Your task to perform on an android device: set default search engine in the chrome app Image 0: 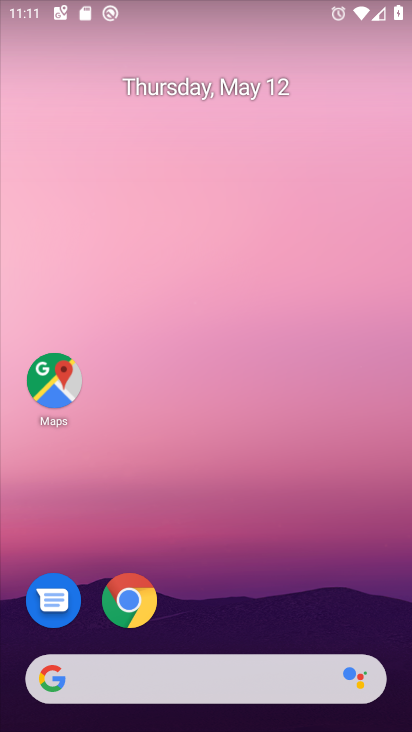
Step 0: click (131, 611)
Your task to perform on an android device: set default search engine in the chrome app Image 1: 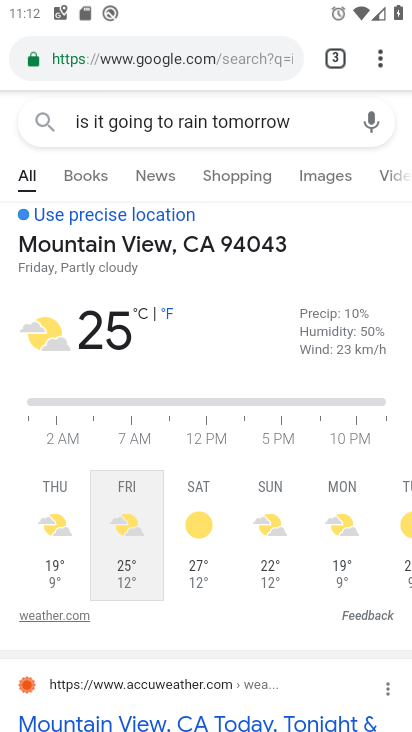
Step 1: click (383, 56)
Your task to perform on an android device: set default search engine in the chrome app Image 2: 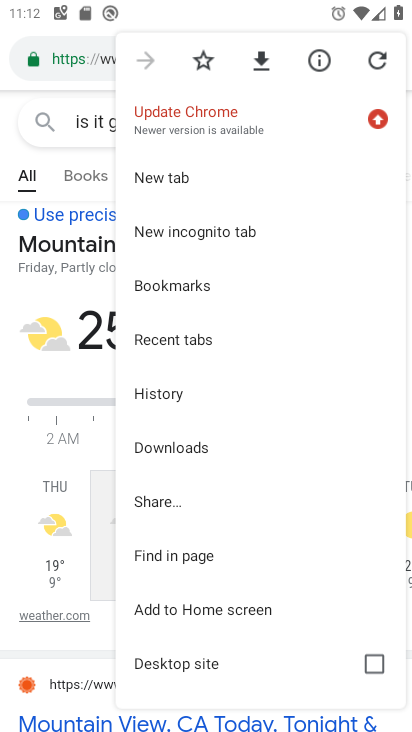
Step 2: drag from (196, 657) to (216, 339)
Your task to perform on an android device: set default search engine in the chrome app Image 3: 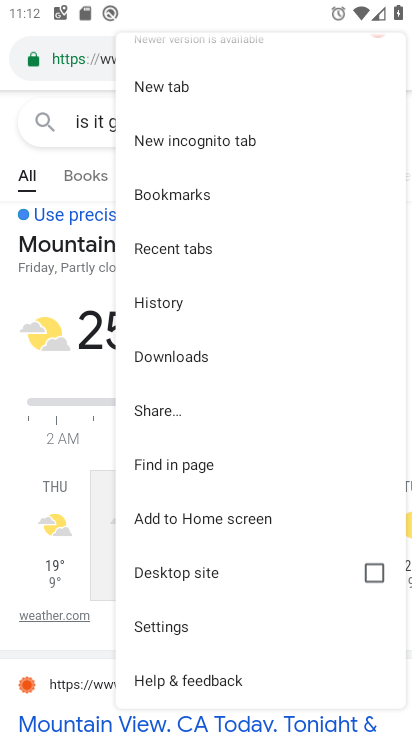
Step 3: click (157, 626)
Your task to perform on an android device: set default search engine in the chrome app Image 4: 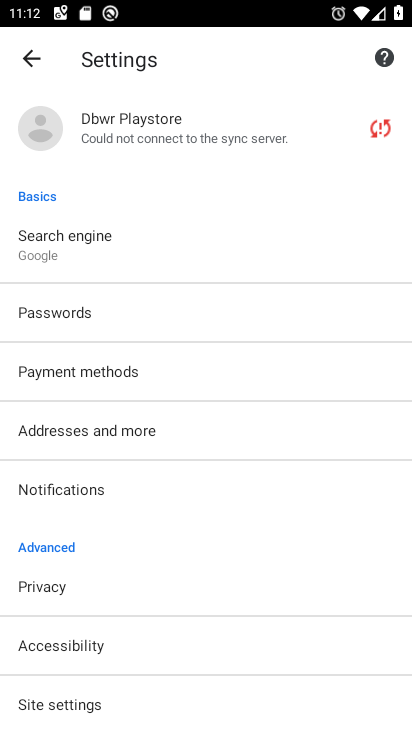
Step 4: click (72, 246)
Your task to perform on an android device: set default search engine in the chrome app Image 5: 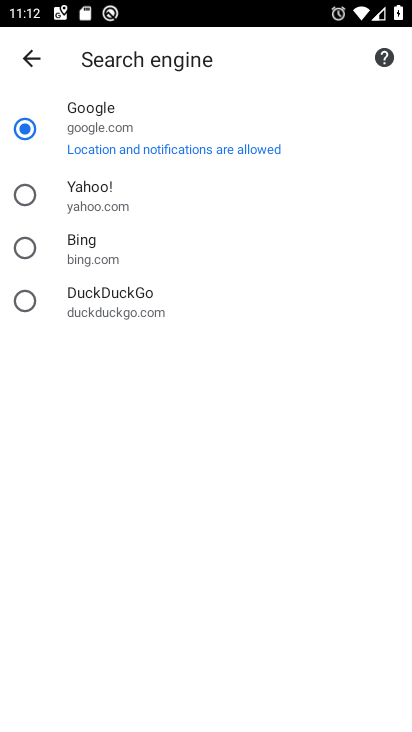
Step 5: click (75, 306)
Your task to perform on an android device: set default search engine in the chrome app Image 6: 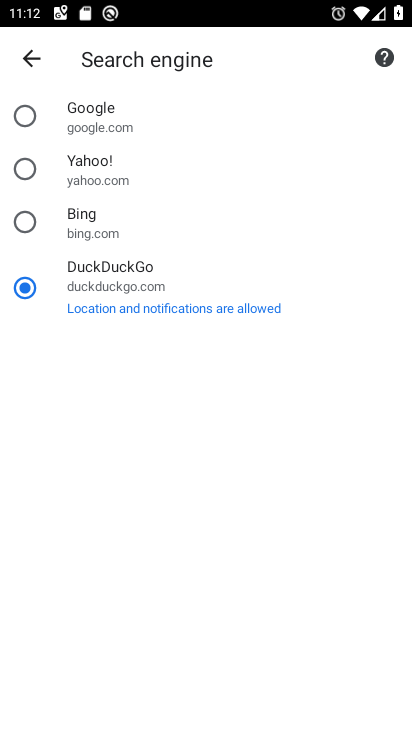
Step 6: task complete